Your task to perform on an android device: What's on my calendar today? Image 0: 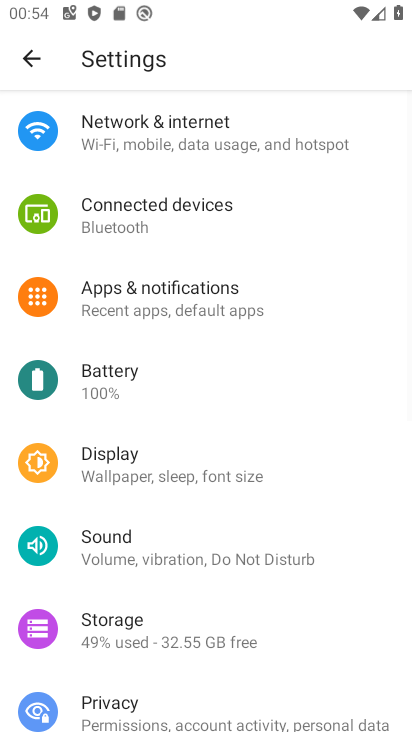
Step 0: press back button
Your task to perform on an android device: What's on my calendar today? Image 1: 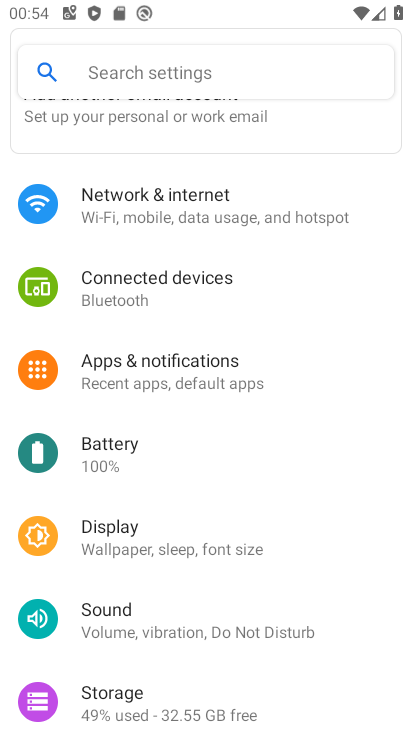
Step 1: press back button
Your task to perform on an android device: What's on my calendar today? Image 2: 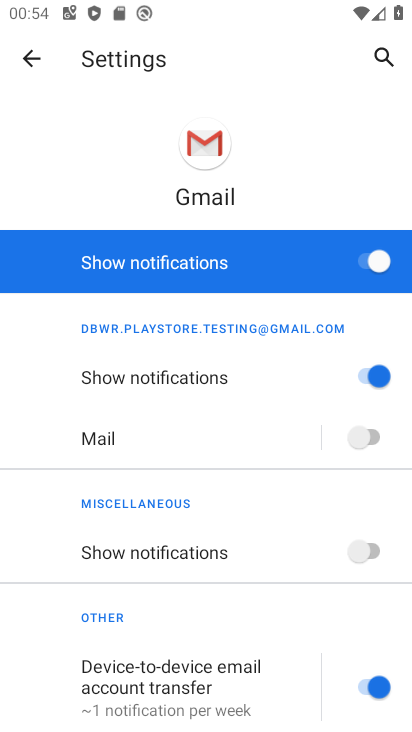
Step 2: press home button
Your task to perform on an android device: What's on my calendar today? Image 3: 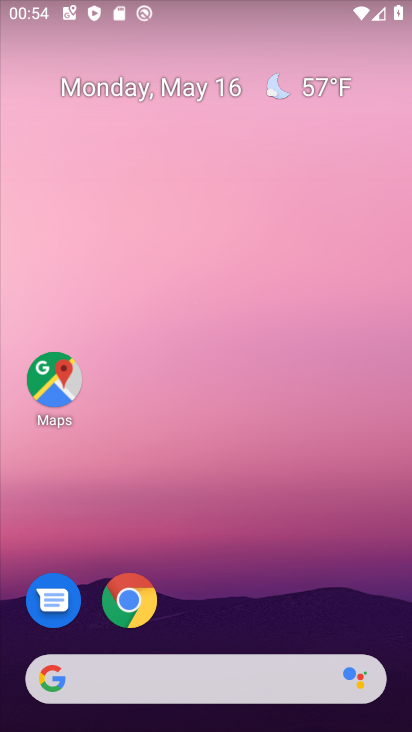
Step 3: drag from (249, 610) to (298, 77)
Your task to perform on an android device: What's on my calendar today? Image 4: 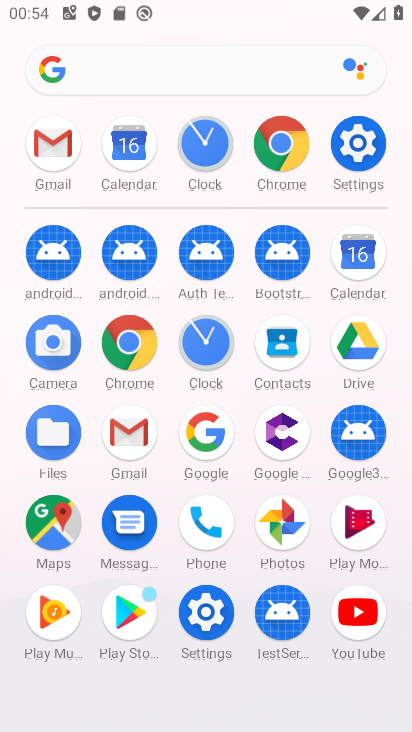
Step 4: click (362, 255)
Your task to perform on an android device: What's on my calendar today? Image 5: 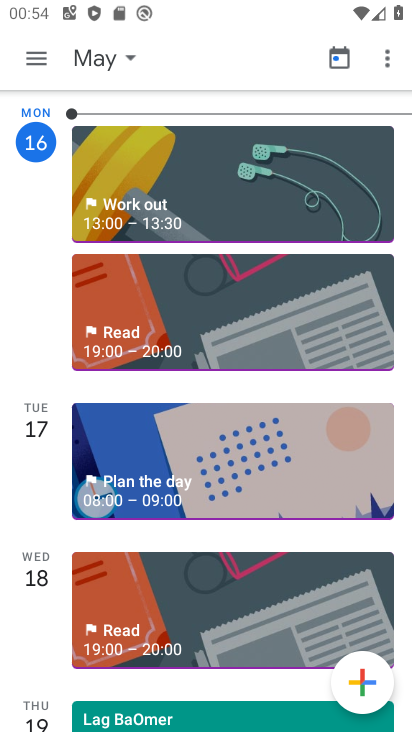
Step 5: drag from (208, 276) to (209, 485)
Your task to perform on an android device: What's on my calendar today? Image 6: 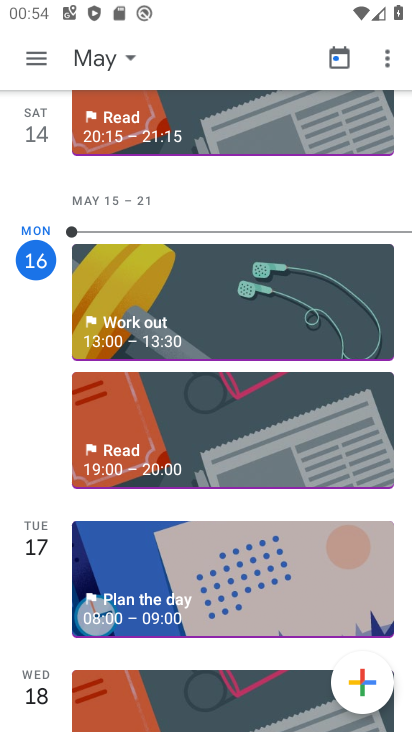
Step 6: click (154, 294)
Your task to perform on an android device: What's on my calendar today? Image 7: 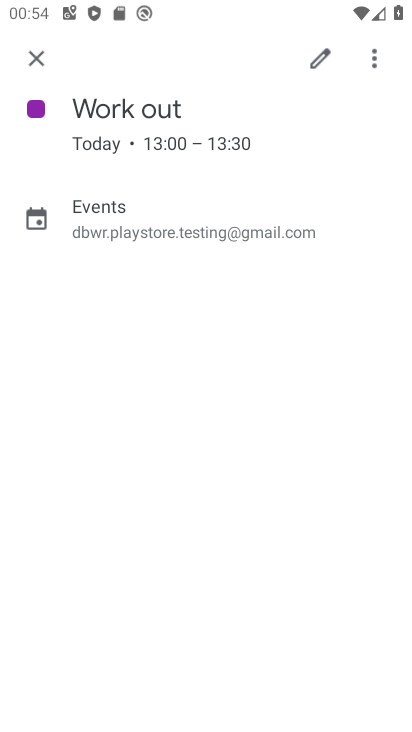
Step 7: task complete